Your task to perform on an android device: Open Google Image 0: 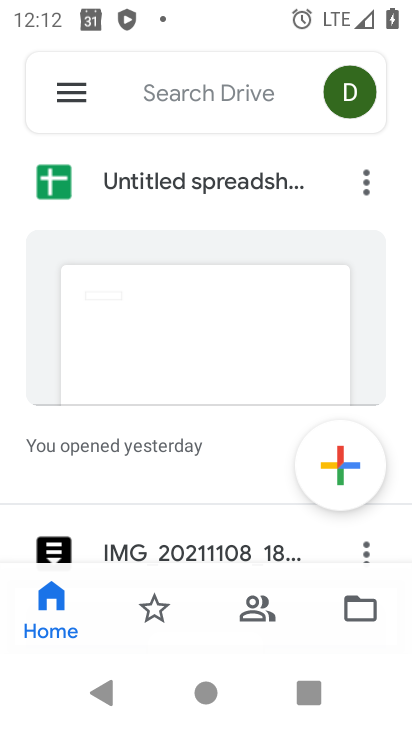
Step 0: press back button
Your task to perform on an android device: Open Google Image 1: 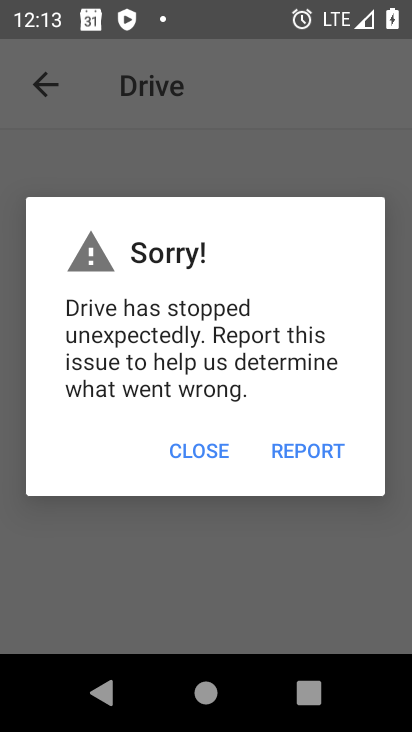
Step 1: press home button
Your task to perform on an android device: Open Google Image 2: 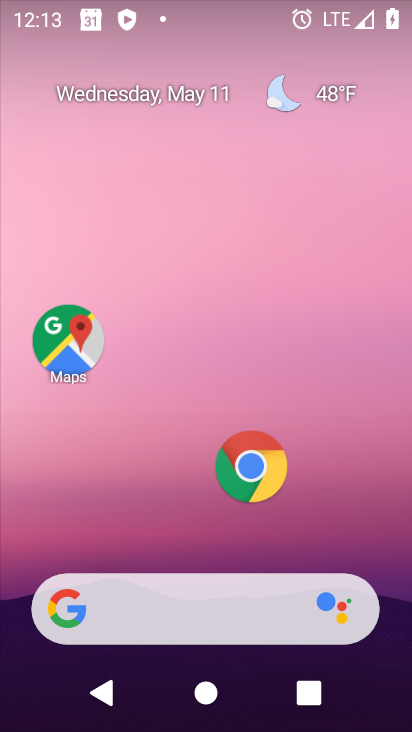
Step 2: drag from (158, 463) to (246, 15)
Your task to perform on an android device: Open Google Image 3: 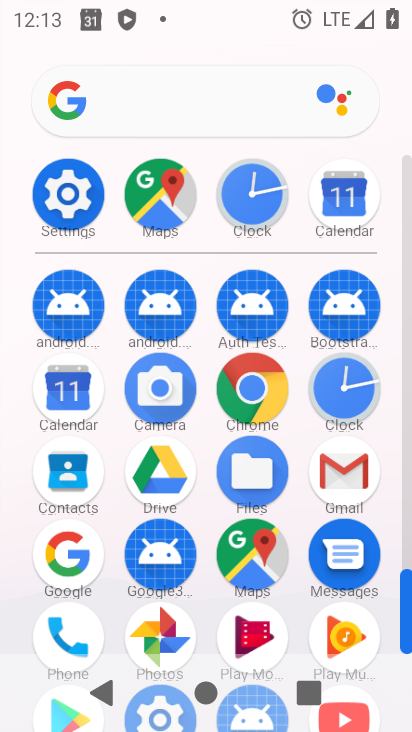
Step 3: click (65, 556)
Your task to perform on an android device: Open Google Image 4: 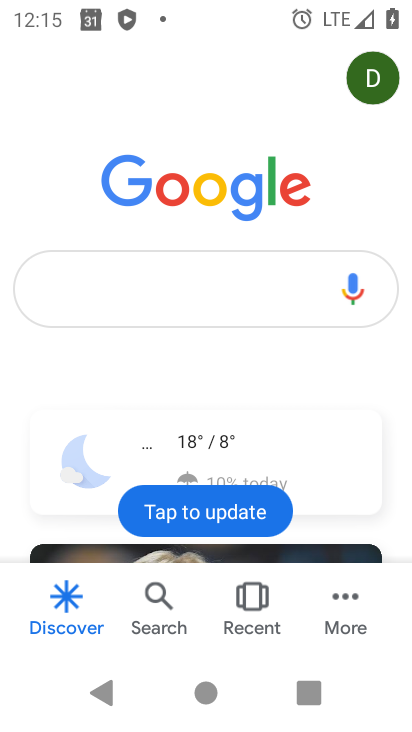
Step 4: task complete